Your task to perform on an android device: Google the capital of Paraguay Image 0: 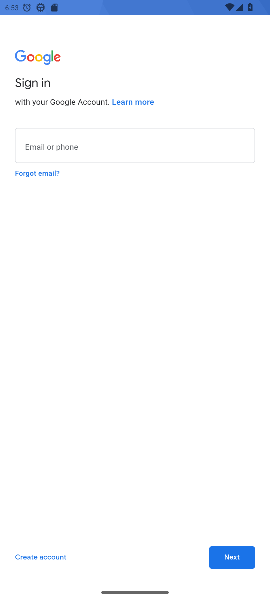
Step 0: press home button
Your task to perform on an android device: Google the capital of Paraguay Image 1: 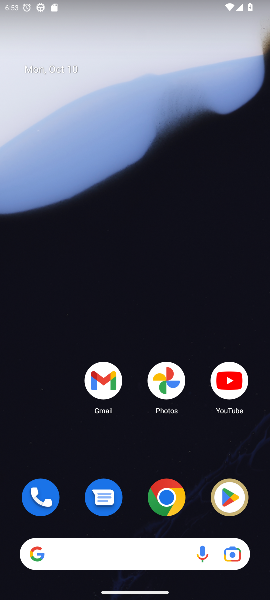
Step 1: drag from (136, 480) to (147, 152)
Your task to perform on an android device: Google the capital of Paraguay Image 2: 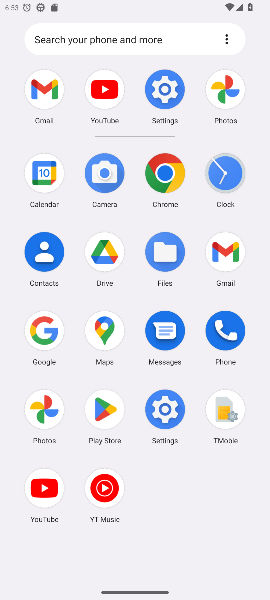
Step 2: click (46, 331)
Your task to perform on an android device: Google the capital of Paraguay Image 3: 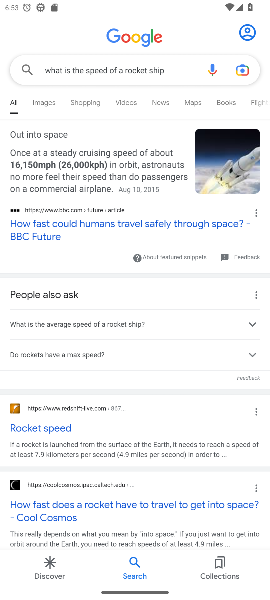
Step 3: click (175, 63)
Your task to perform on an android device: Google the capital of Paraguay Image 4: 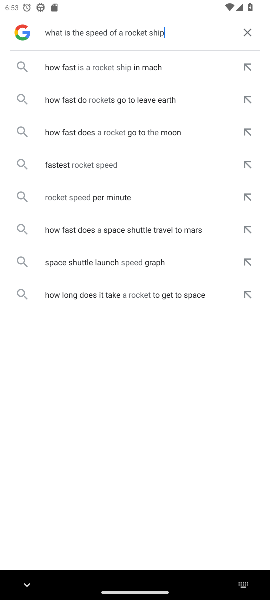
Step 4: click (246, 30)
Your task to perform on an android device: Google the capital of Paraguay Image 5: 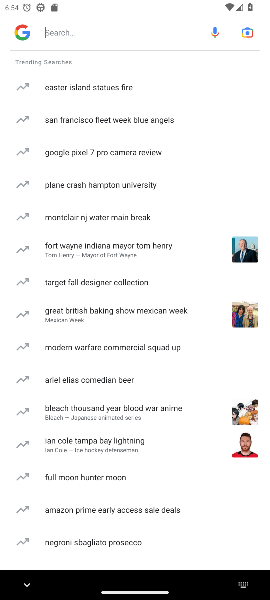
Step 5: click (92, 33)
Your task to perform on an android device: Google the capital of Paraguay Image 6: 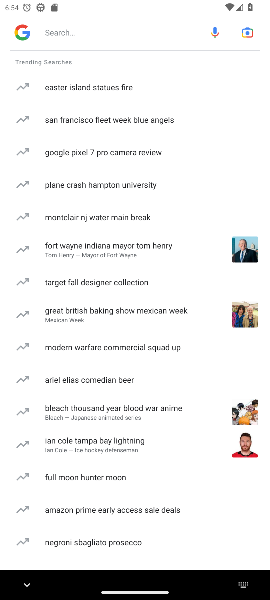
Step 6: type "Google the capital of Paraguay "
Your task to perform on an android device: Google the capital of Paraguay Image 7: 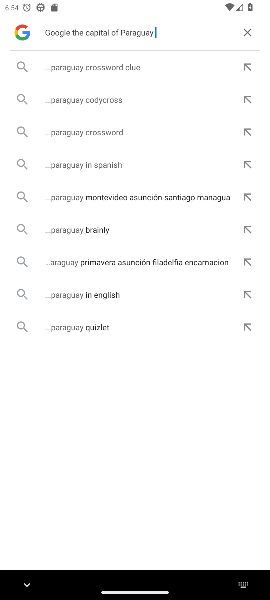
Step 7: click (96, 55)
Your task to perform on an android device: Google the capital of Paraguay Image 8: 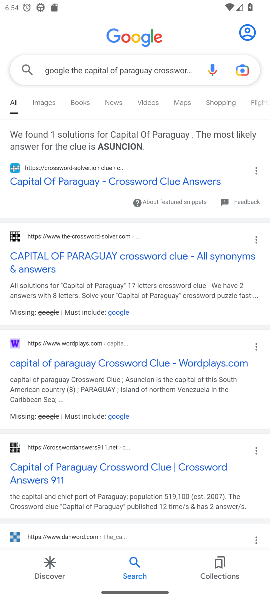
Step 8: click (81, 184)
Your task to perform on an android device: Google the capital of Paraguay Image 9: 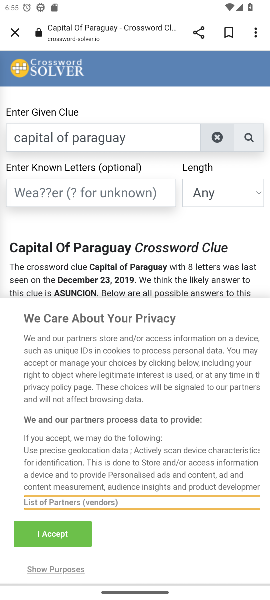
Step 9: task complete